Your task to perform on an android device: Search for pizza restaurants on Maps Image 0: 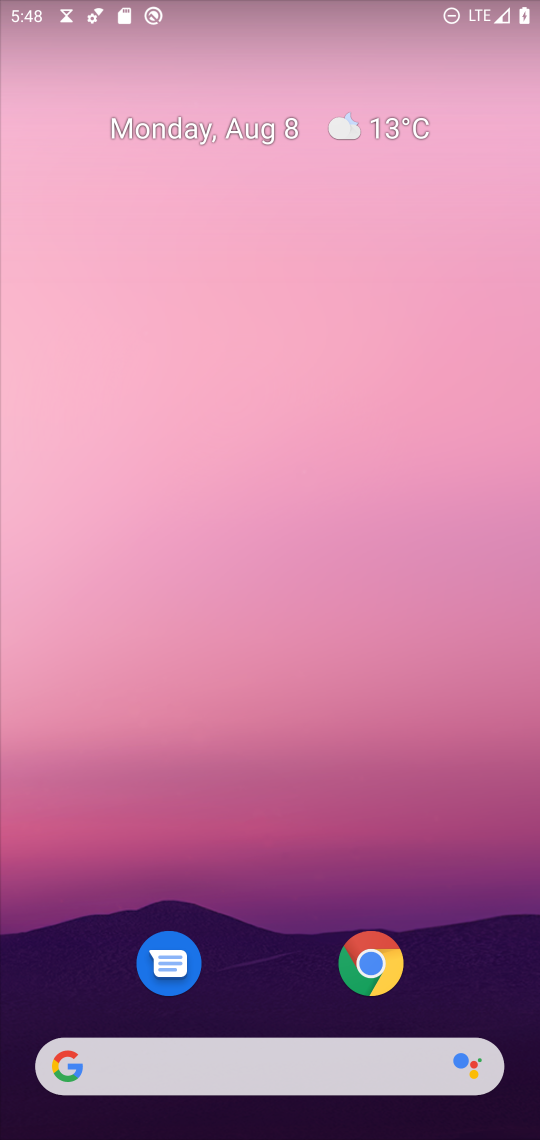
Step 0: drag from (265, 918) to (247, 284)
Your task to perform on an android device: Search for pizza restaurants on Maps Image 1: 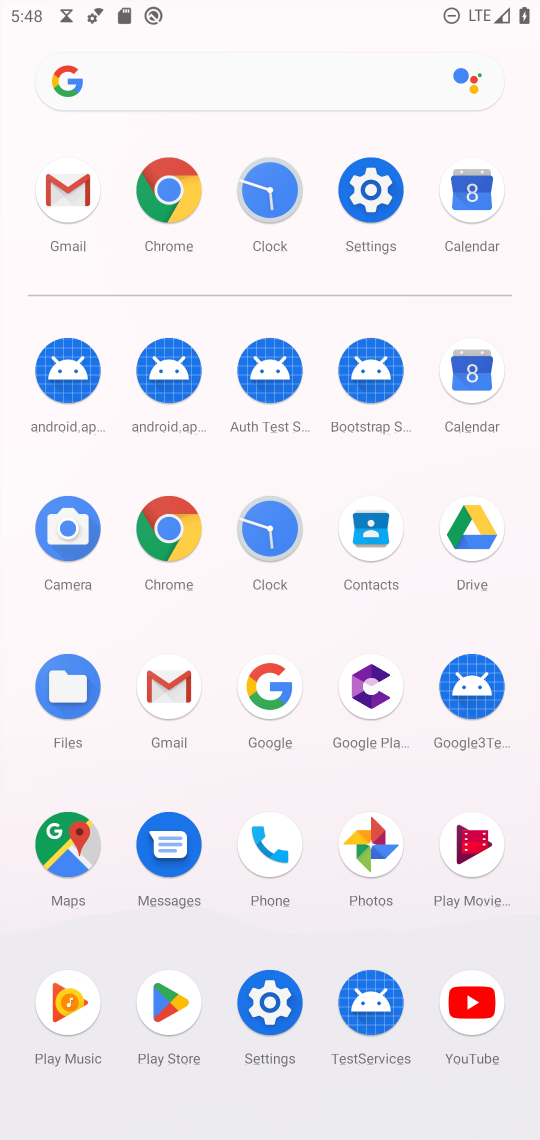
Step 1: click (86, 831)
Your task to perform on an android device: Search for pizza restaurants on Maps Image 2: 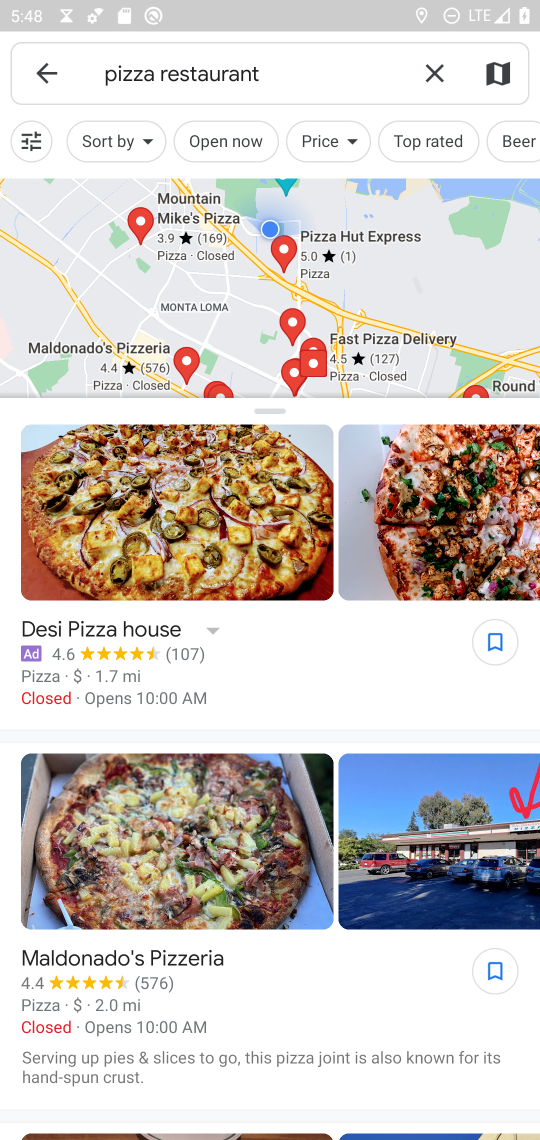
Step 2: task complete